Your task to perform on an android device: turn smart compose on in the gmail app Image 0: 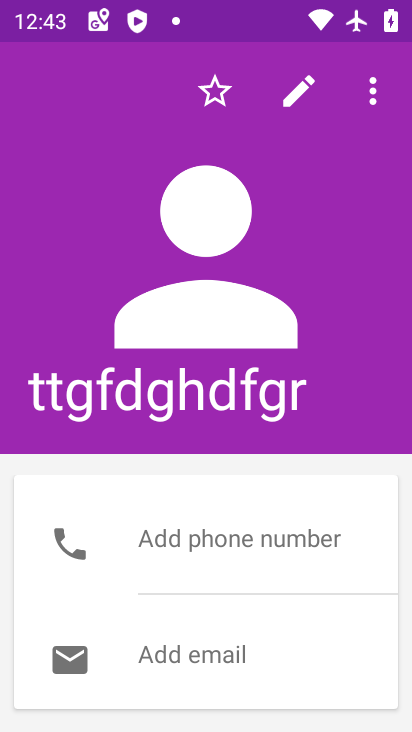
Step 0: press home button
Your task to perform on an android device: turn smart compose on in the gmail app Image 1: 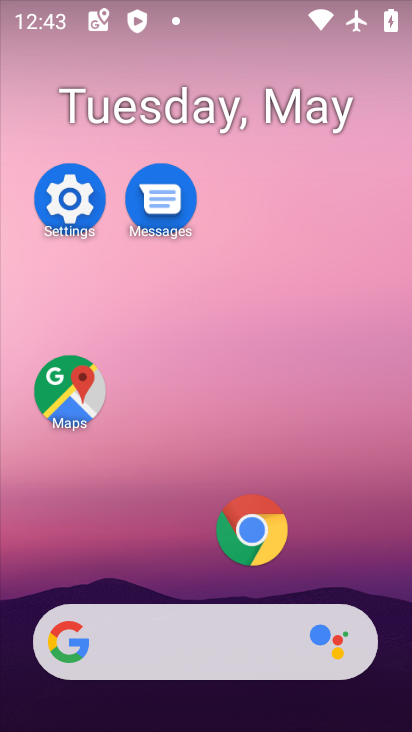
Step 1: drag from (182, 523) to (285, 242)
Your task to perform on an android device: turn smart compose on in the gmail app Image 2: 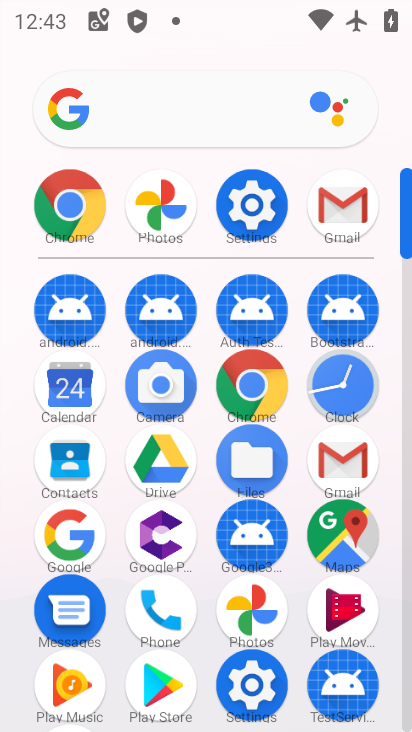
Step 2: click (322, 459)
Your task to perform on an android device: turn smart compose on in the gmail app Image 3: 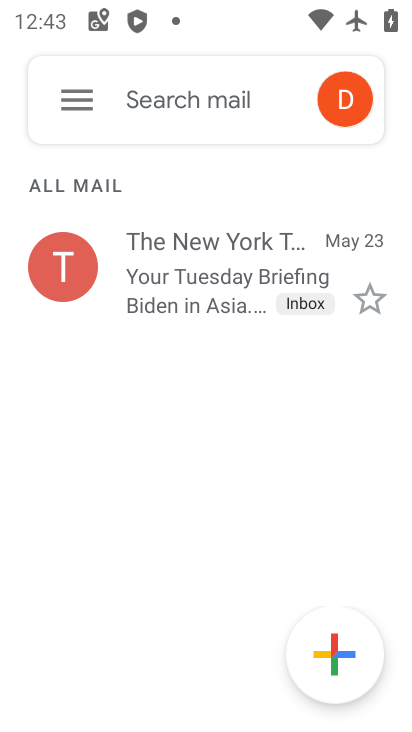
Step 3: click (94, 107)
Your task to perform on an android device: turn smart compose on in the gmail app Image 4: 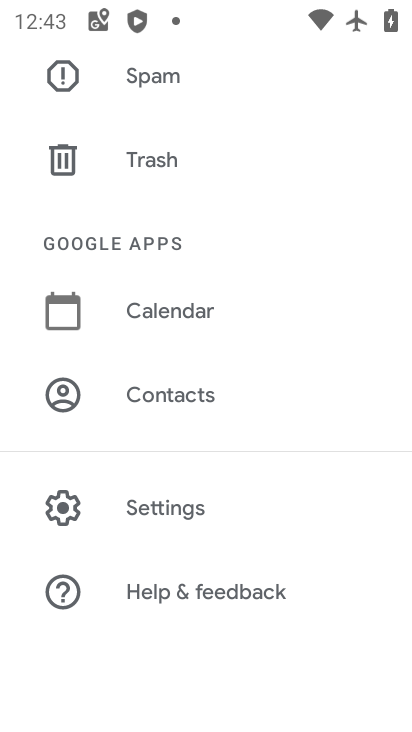
Step 4: click (157, 511)
Your task to perform on an android device: turn smart compose on in the gmail app Image 5: 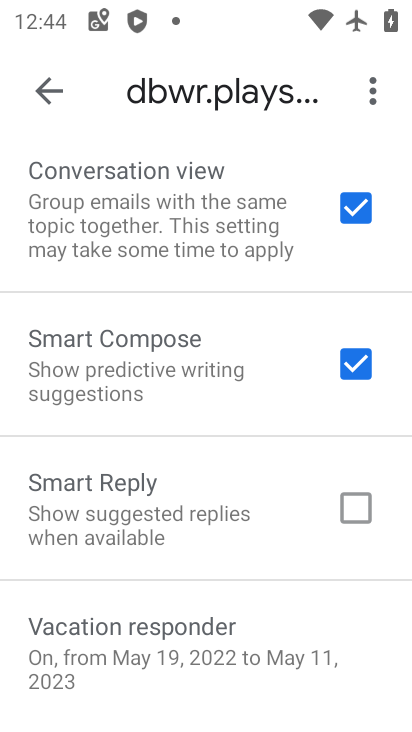
Step 5: task complete